Your task to perform on an android device: Open Chrome and go to the settings page Image 0: 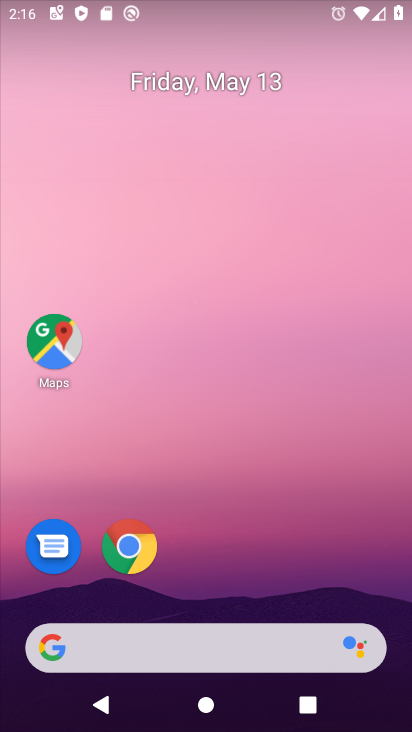
Step 0: drag from (240, 581) to (326, 209)
Your task to perform on an android device: Open Chrome and go to the settings page Image 1: 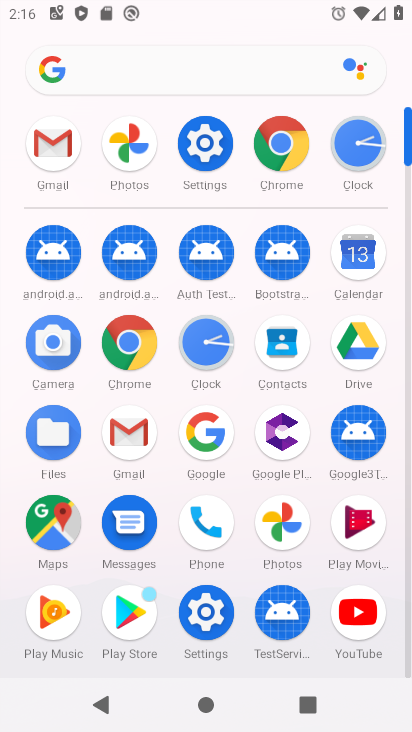
Step 1: click (139, 344)
Your task to perform on an android device: Open Chrome and go to the settings page Image 2: 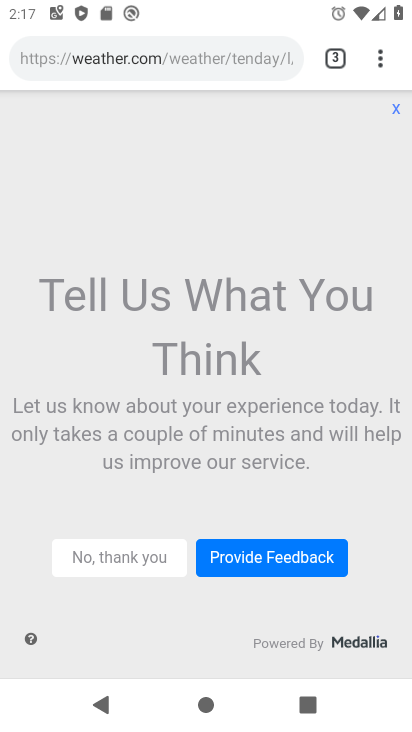
Step 2: click (382, 52)
Your task to perform on an android device: Open Chrome and go to the settings page Image 3: 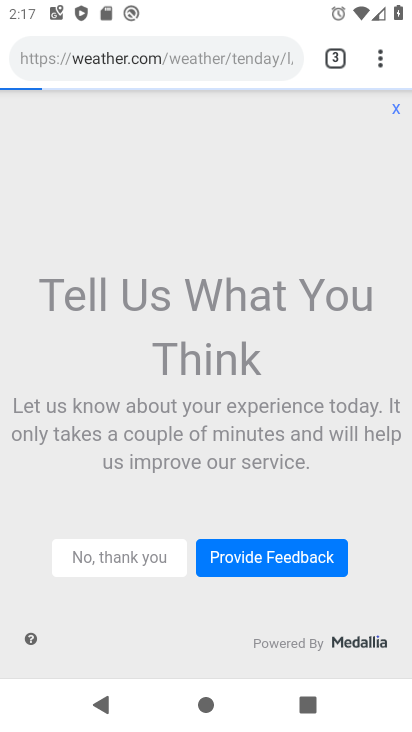
Step 3: task complete